Your task to perform on an android device: turn on location history Image 0: 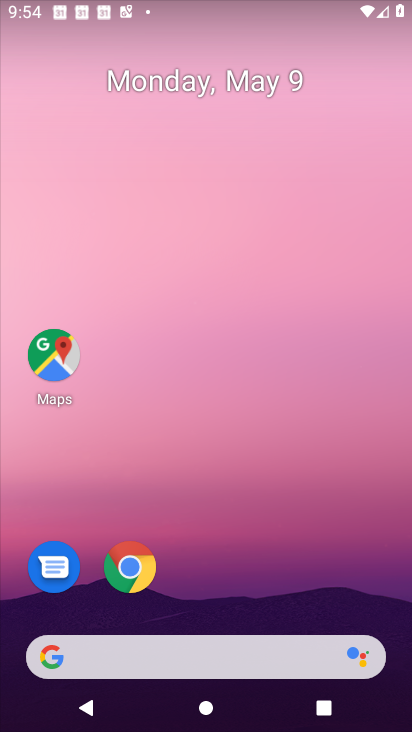
Step 0: drag from (160, 652) to (121, 183)
Your task to perform on an android device: turn on location history Image 1: 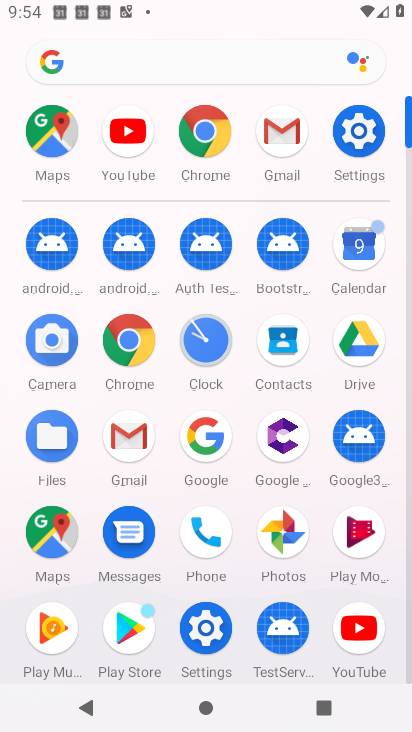
Step 1: click (340, 149)
Your task to perform on an android device: turn on location history Image 2: 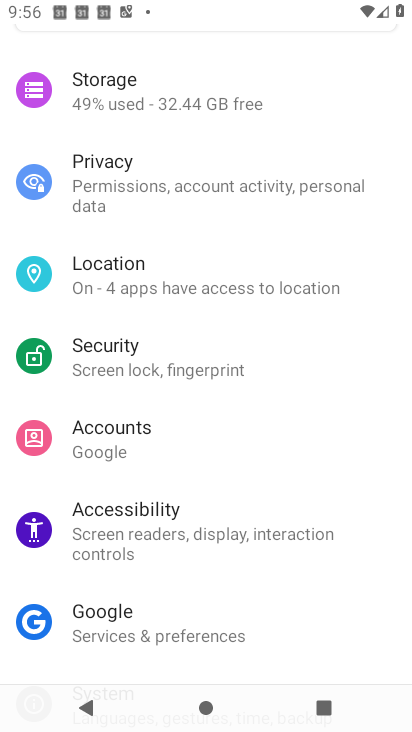
Step 2: click (133, 276)
Your task to perform on an android device: turn on location history Image 3: 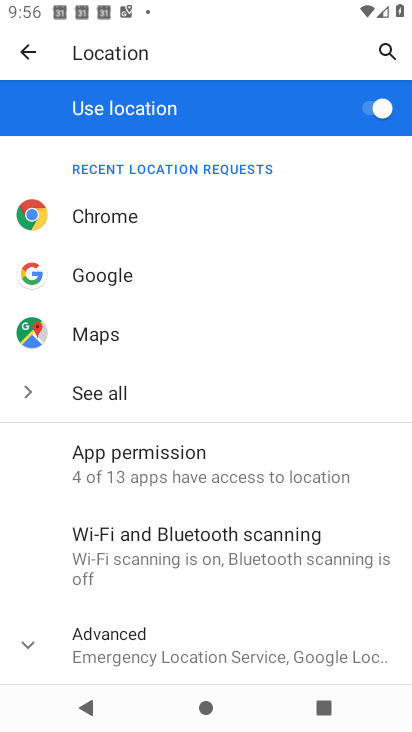
Step 3: drag from (170, 633) to (97, 123)
Your task to perform on an android device: turn on location history Image 4: 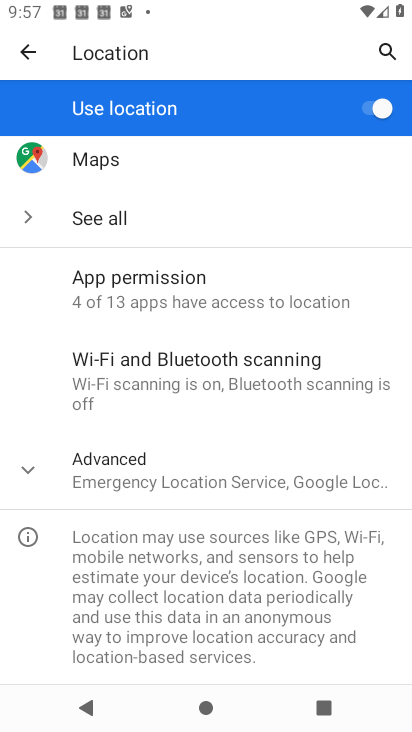
Step 4: click (132, 487)
Your task to perform on an android device: turn on location history Image 5: 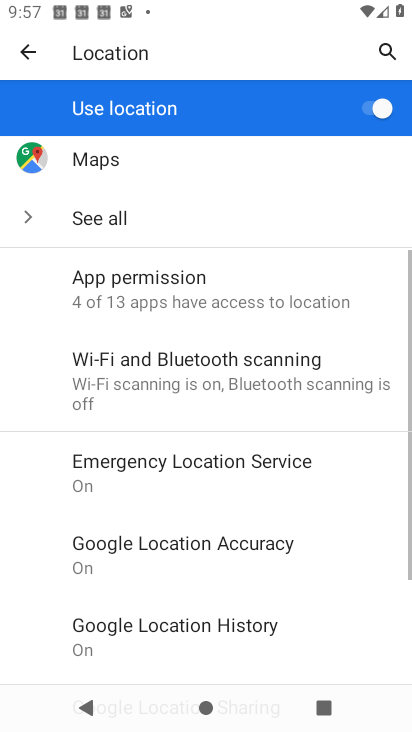
Step 5: drag from (179, 551) to (161, 259)
Your task to perform on an android device: turn on location history Image 6: 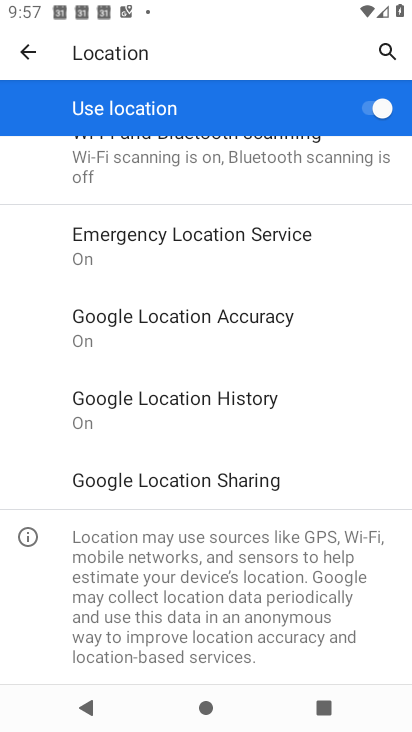
Step 6: click (122, 399)
Your task to perform on an android device: turn on location history Image 7: 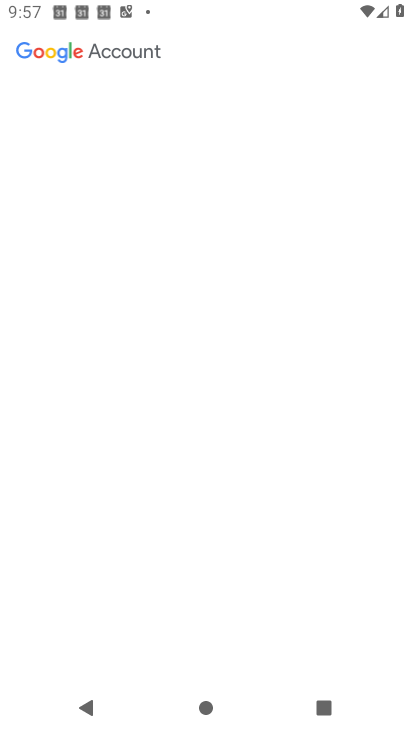
Step 7: task complete